Your task to perform on an android device: turn off sleep mode Image 0: 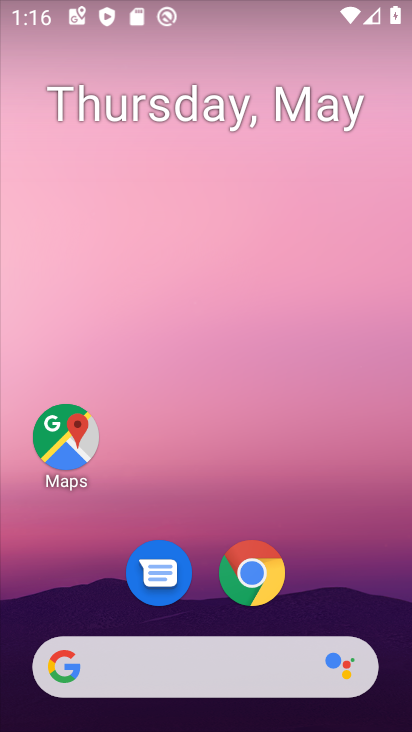
Step 0: drag from (228, 668) to (322, 58)
Your task to perform on an android device: turn off sleep mode Image 1: 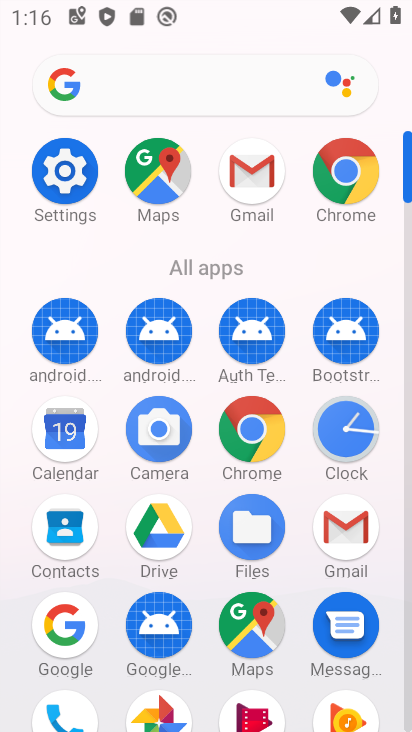
Step 1: click (62, 184)
Your task to perform on an android device: turn off sleep mode Image 2: 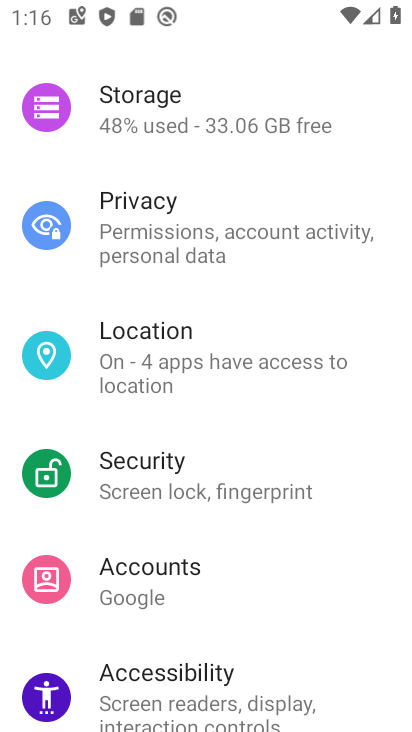
Step 2: drag from (203, 167) to (188, 669)
Your task to perform on an android device: turn off sleep mode Image 3: 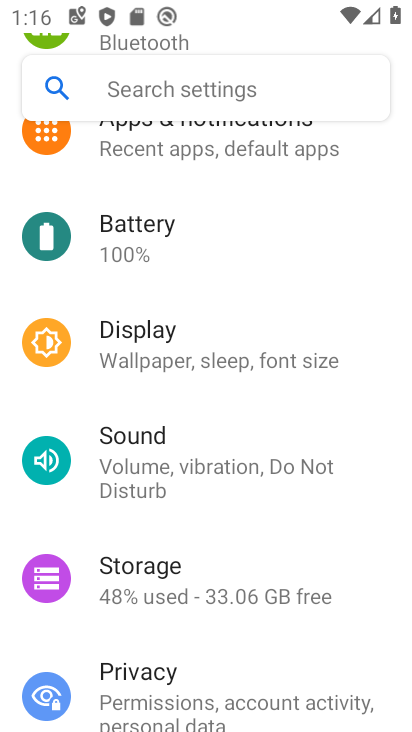
Step 3: click (144, 363)
Your task to perform on an android device: turn off sleep mode Image 4: 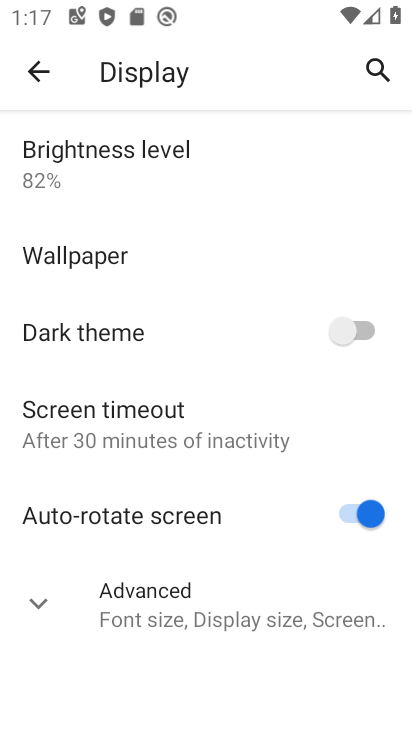
Step 4: click (134, 627)
Your task to perform on an android device: turn off sleep mode Image 5: 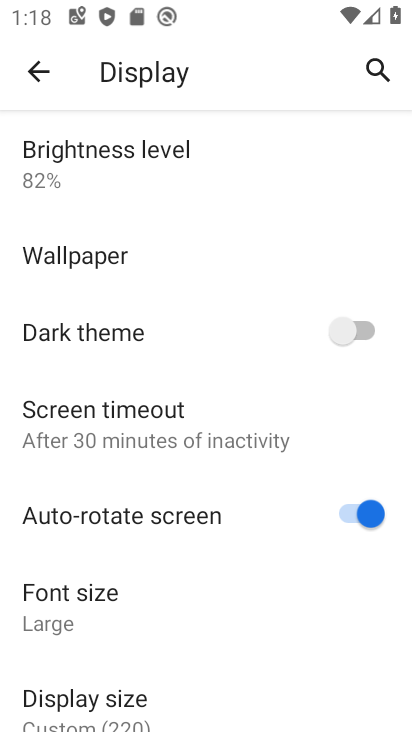
Step 5: task complete